Your task to perform on an android device: check out phone information Image 0: 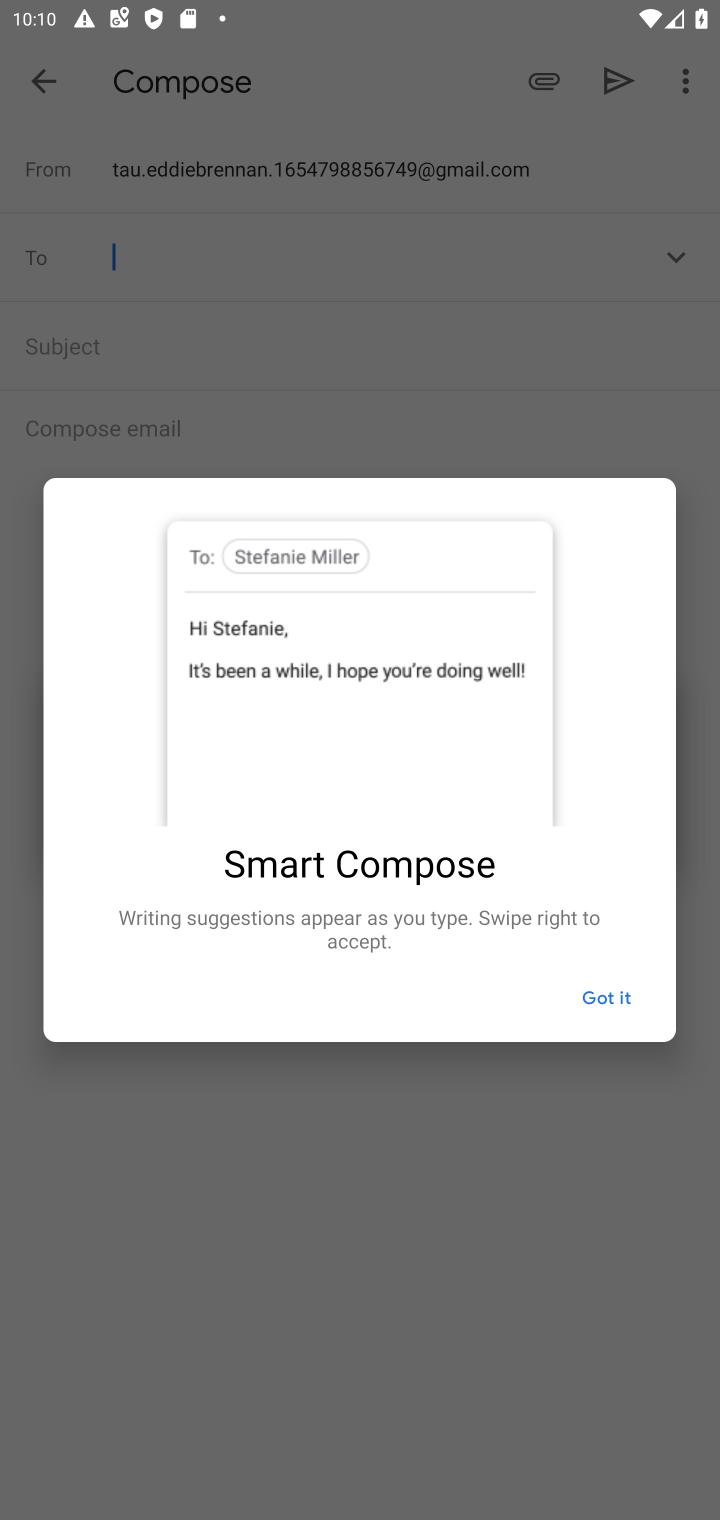
Step 0: press home button
Your task to perform on an android device: check out phone information Image 1: 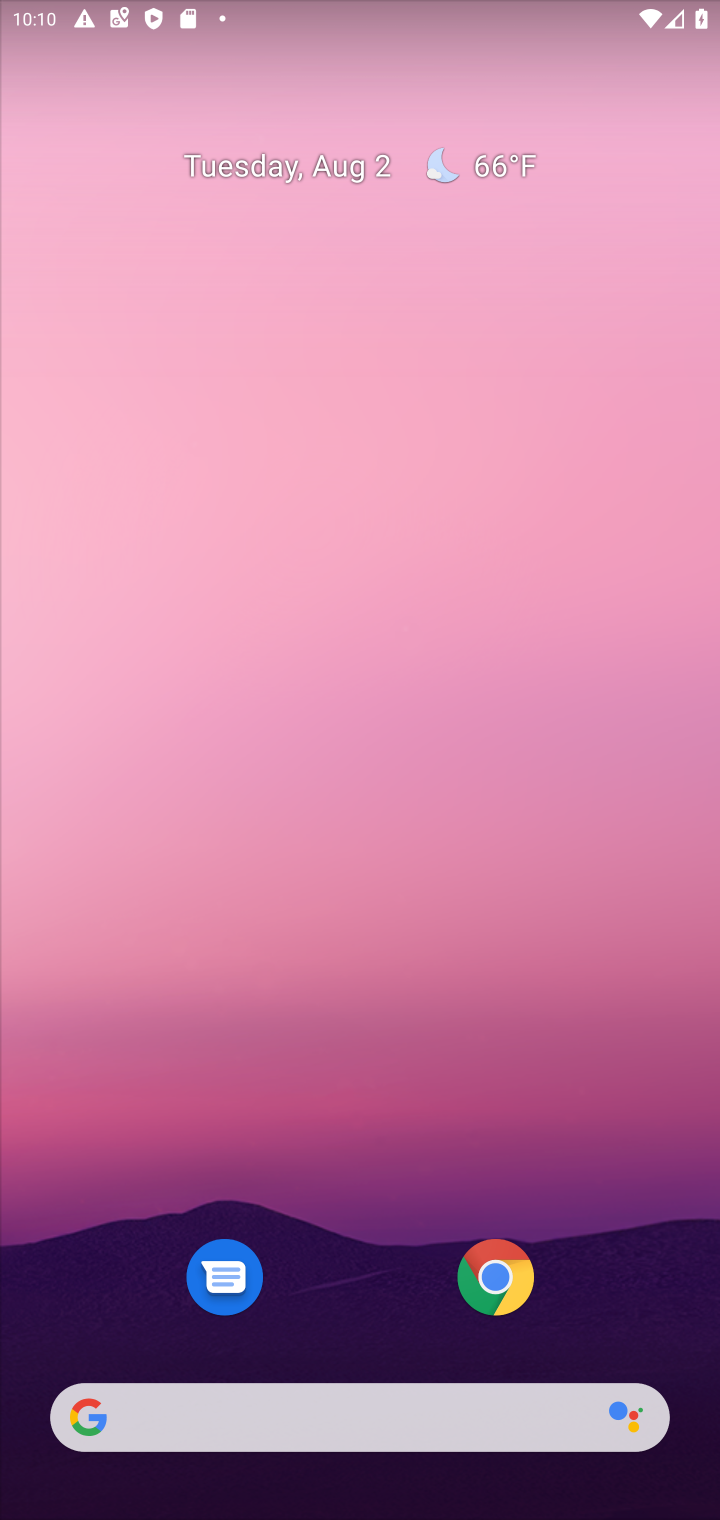
Step 1: drag from (393, 1037) to (360, 406)
Your task to perform on an android device: check out phone information Image 2: 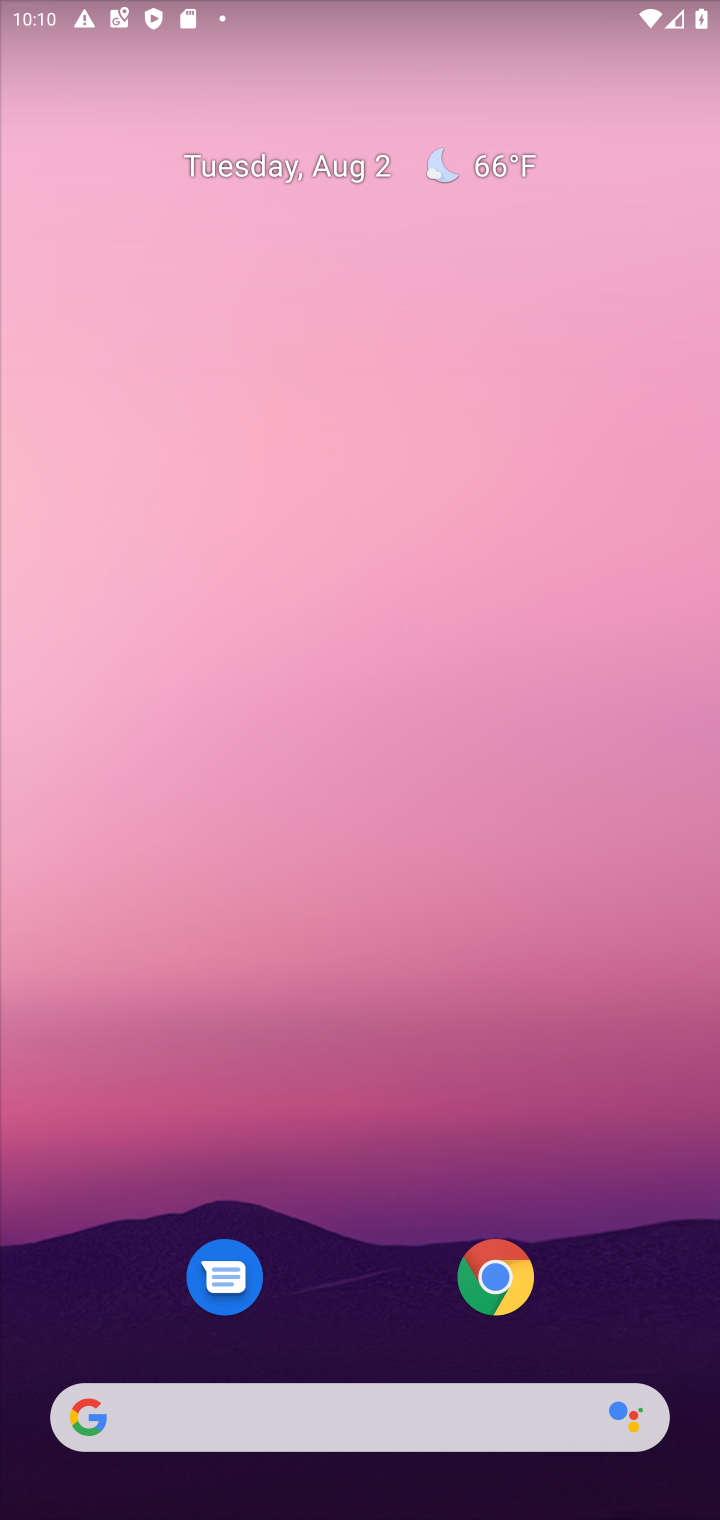
Step 2: drag from (373, 952) to (277, 256)
Your task to perform on an android device: check out phone information Image 3: 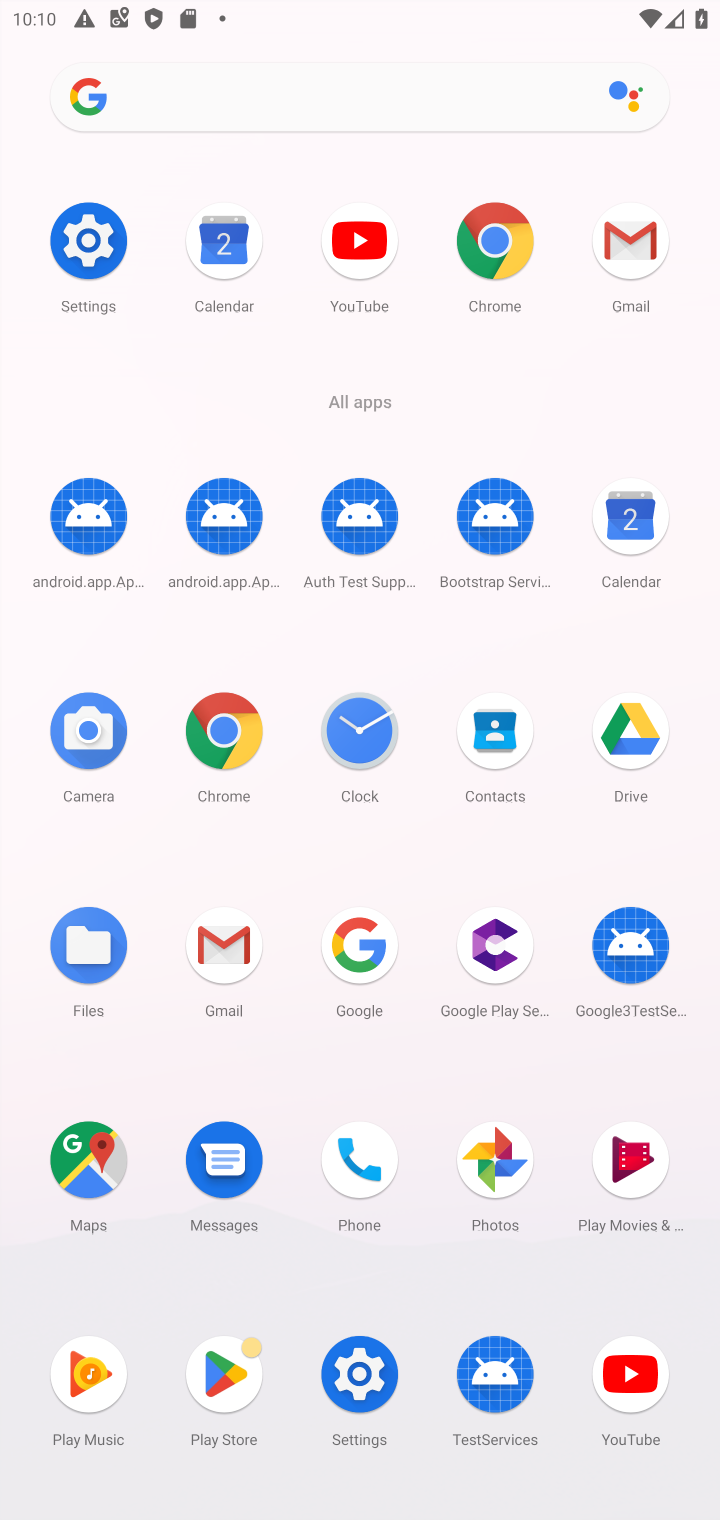
Step 3: click (79, 239)
Your task to perform on an android device: check out phone information Image 4: 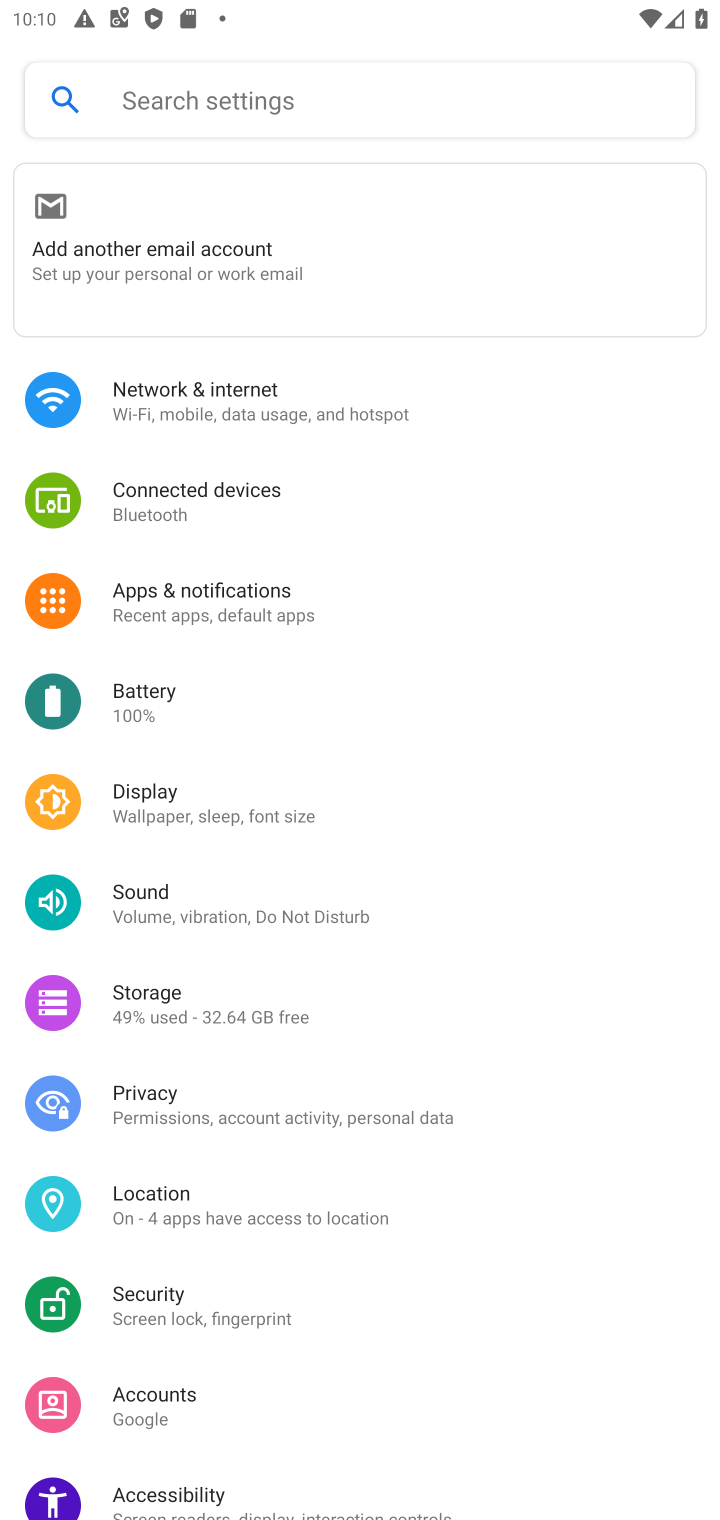
Step 4: drag from (349, 1137) to (401, 386)
Your task to perform on an android device: check out phone information Image 5: 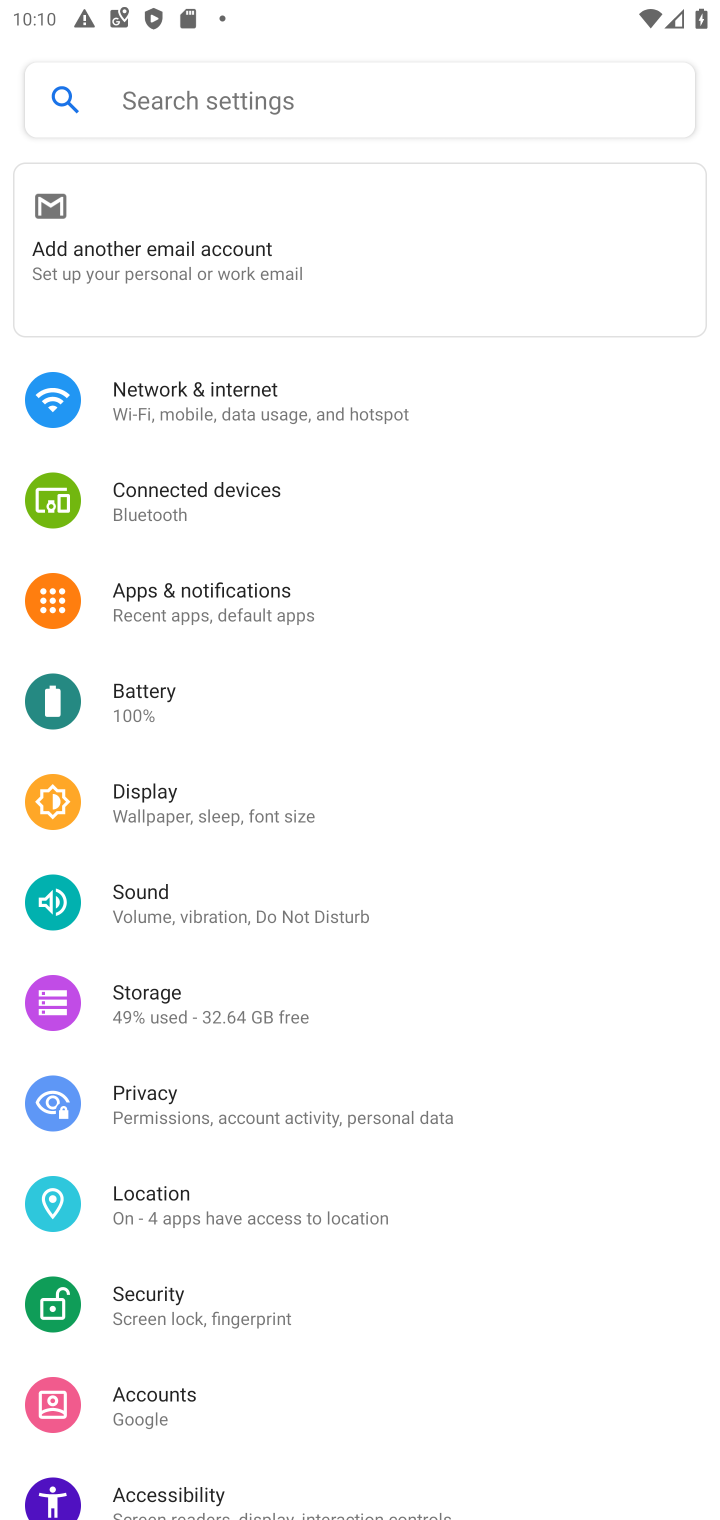
Step 5: drag from (380, 1369) to (397, 734)
Your task to perform on an android device: check out phone information Image 6: 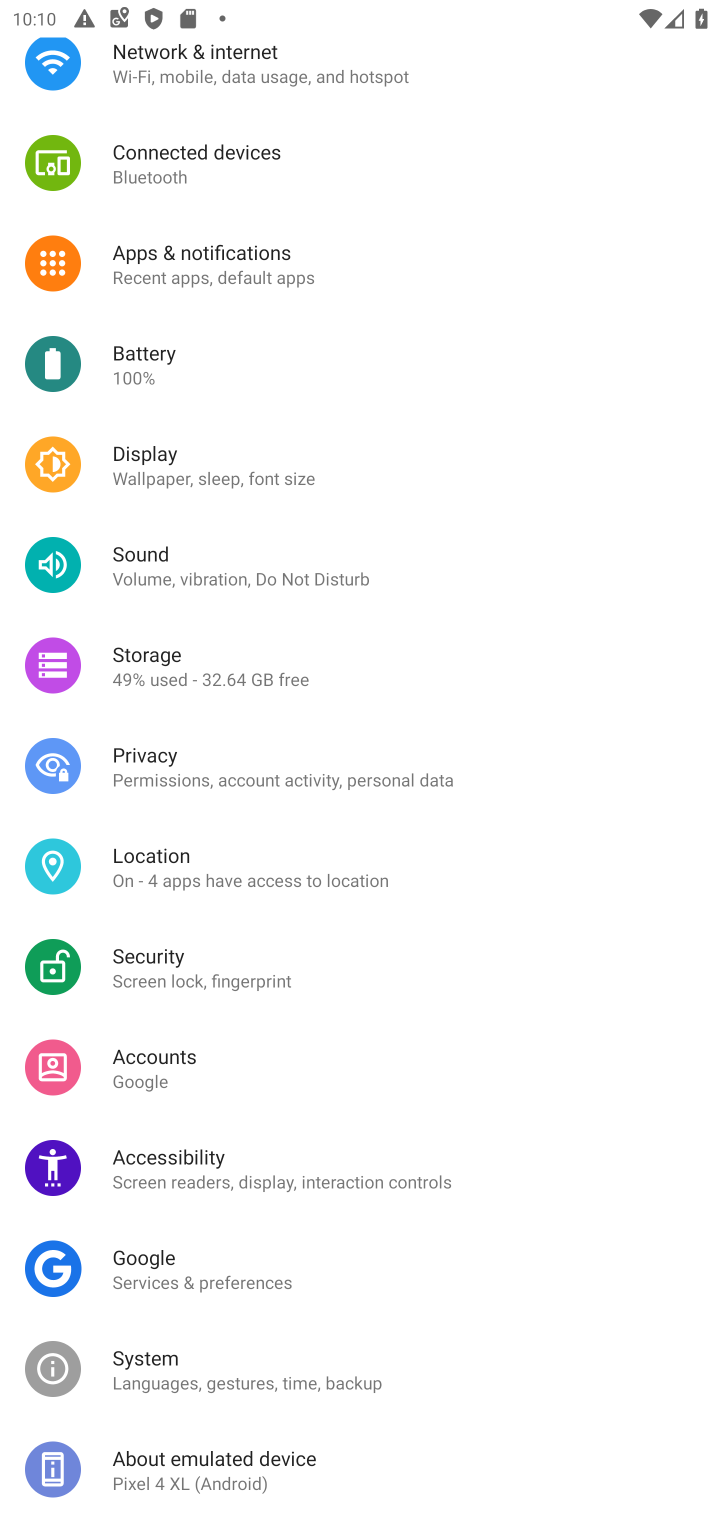
Step 6: click (267, 1477)
Your task to perform on an android device: check out phone information Image 7: 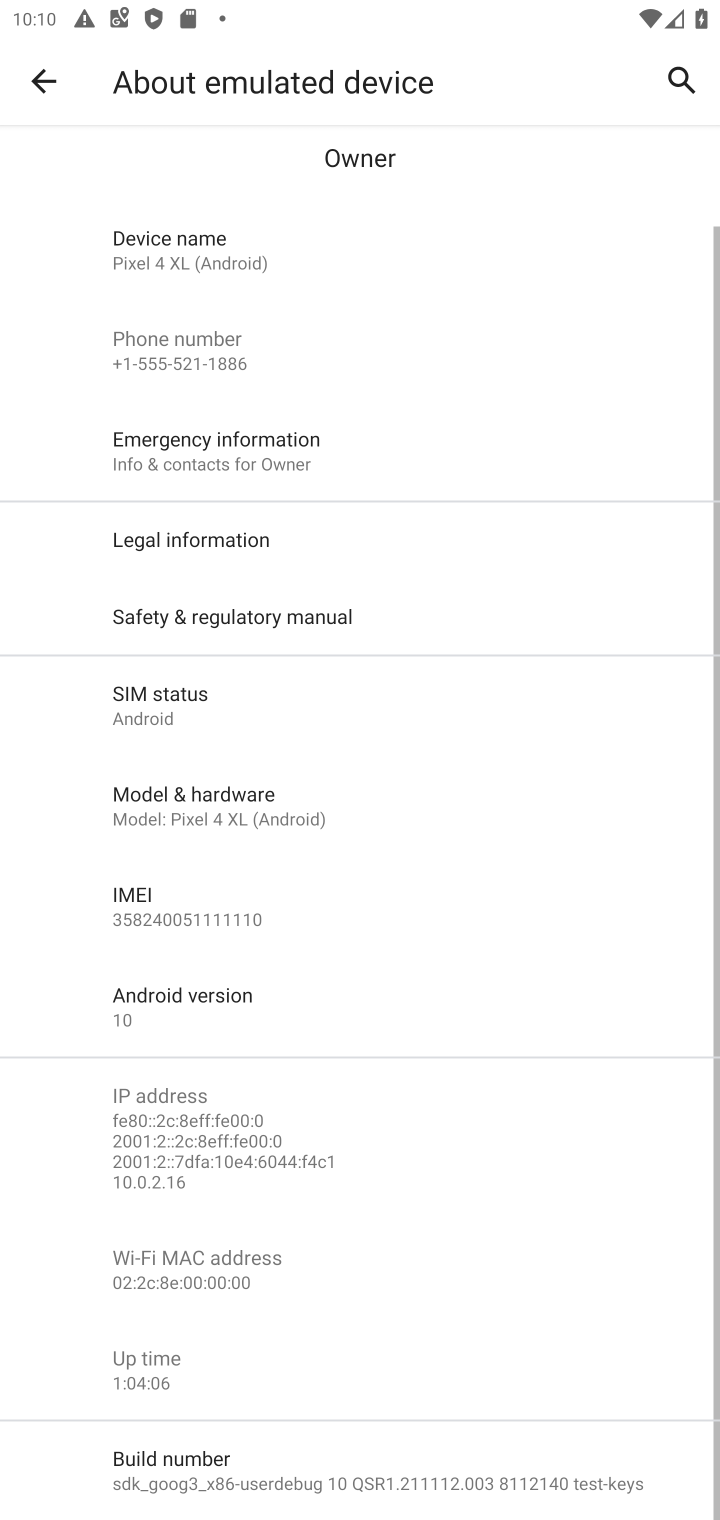
Step 7: task complete